Your task to perform on an android device: Play the last video I watched on Youtube Image 0: 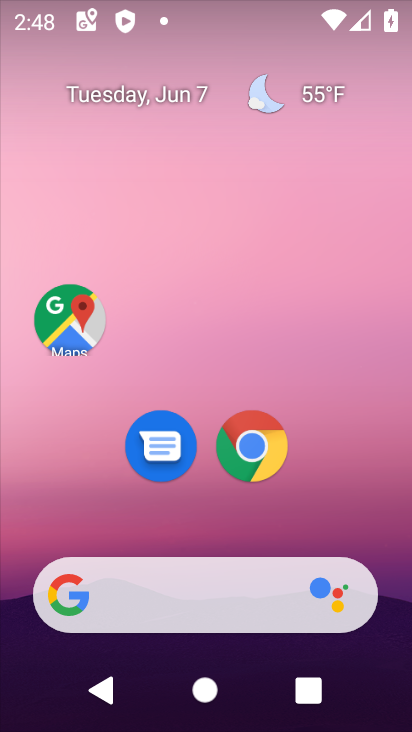
Step 0: drag from (254, 502) to (354, 1)
Your task to perform on an android device: Play the last video I watched on Youtube Image 1: 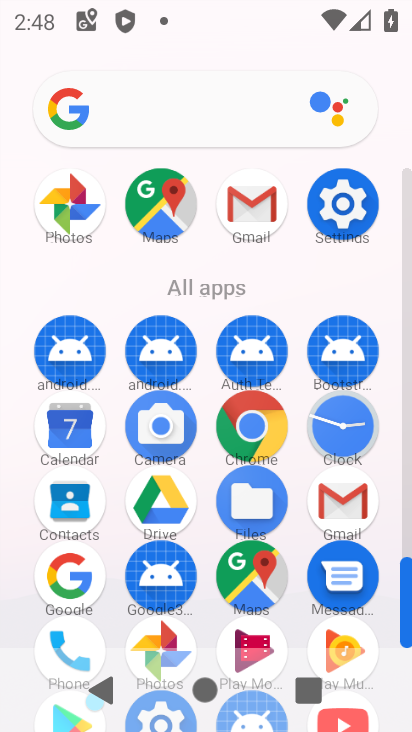
Step 1: drag from (231, 599) to (293, 98)
Your task to perform on an android device: Play the last video I watched on Youtube Image 2: 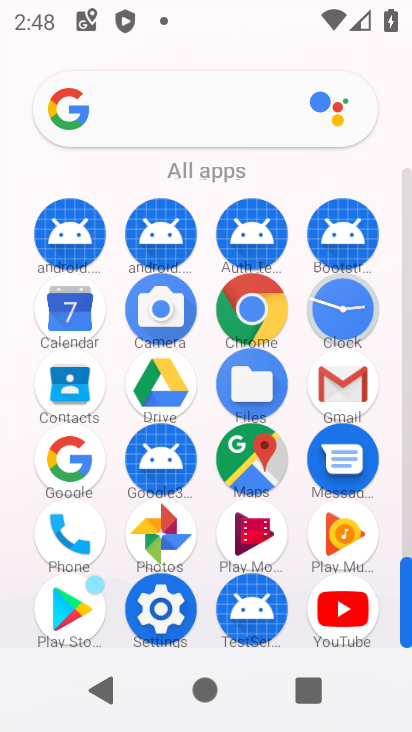
Step 2: click (360, 626)
Your task to perform on an android device: Play the last video I watched on Youtube Image 3: 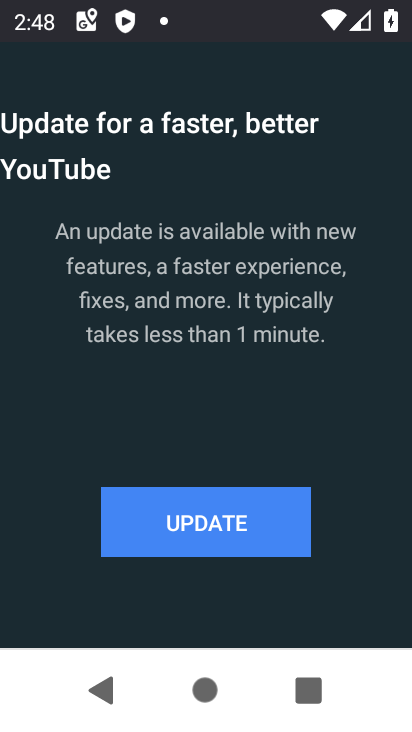
Step 3: click (226, 521)
Your task to perform on an android device: Play the last video I watched on Youtube Image 4: 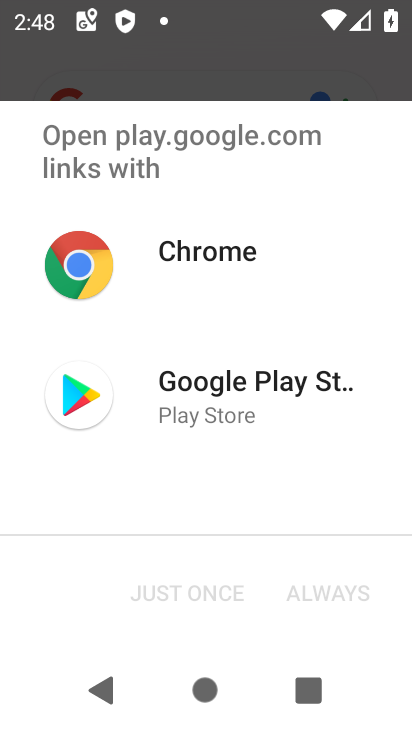
Step 4: click (206, 382)
Your task to perform on an android device: Play the last video I watched on Youtube Image 5: 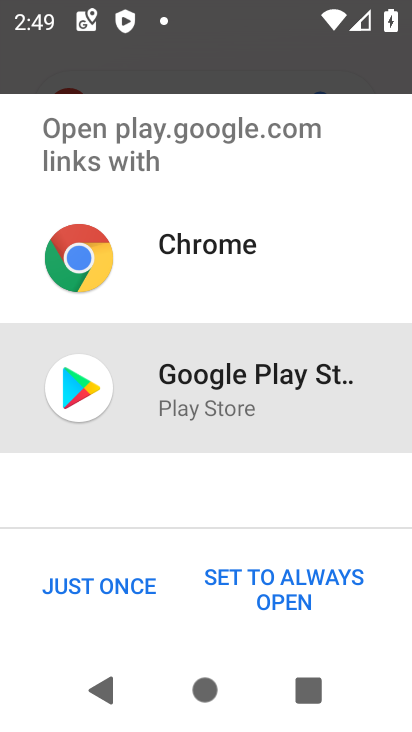
Step 5: click (111, 595)
Your task to perform on an android device: Play the last video I watched on Youtube Image 6: 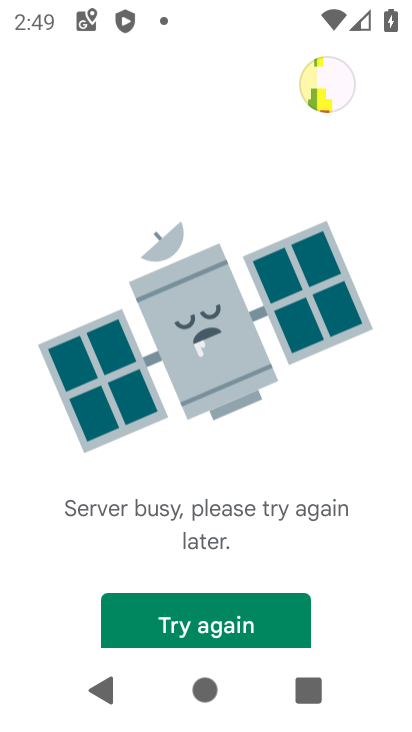
Step 6: click (224, 635)
Your task to perform on an android device: Play the last video I watched on Youtube Image 7: 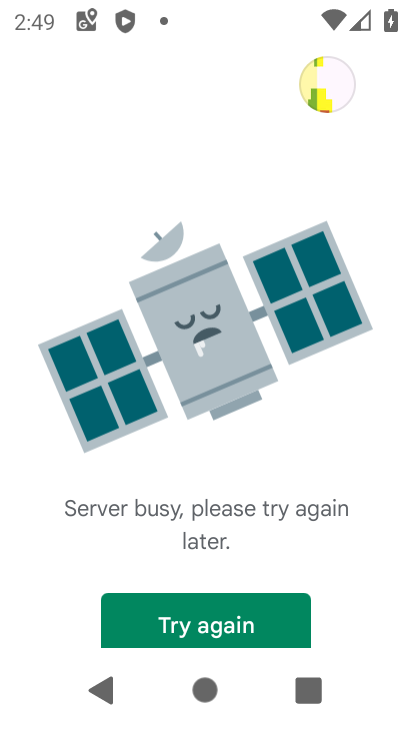
Step 7: task complete